Your task to perform on an android device: Open maps Image 0: 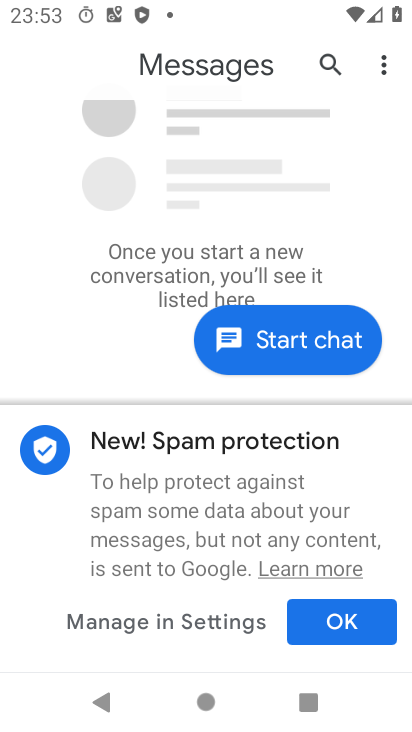
Step 0: press home button
Your task to perform on an android device: Open maps Image 1: 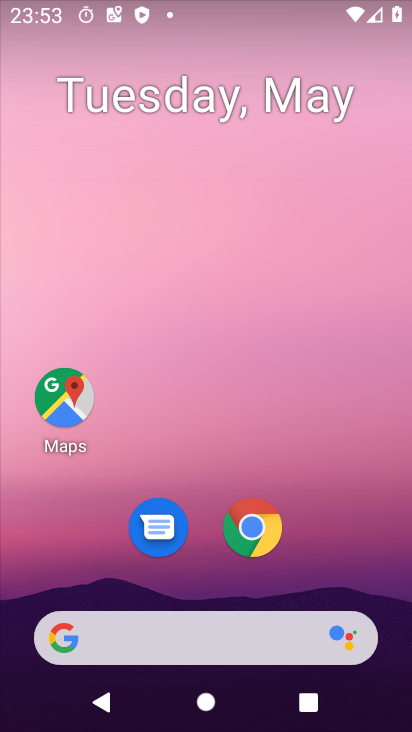
Step 1: drag from (200, 580) to (235, 119)
Your task to perform on an android device: Open maps Image 2: 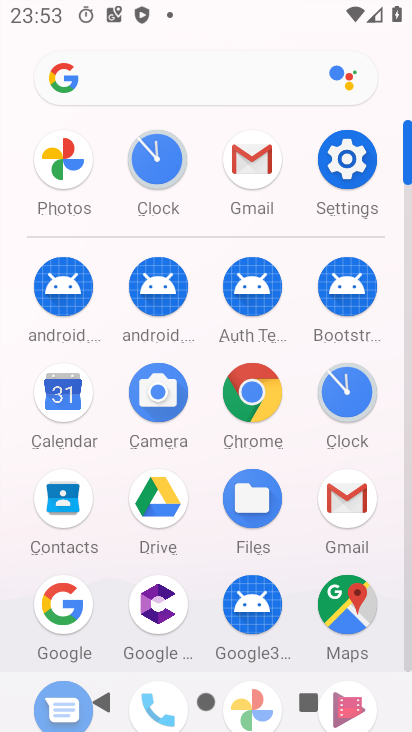
Step 2: click (348, 602)
Your task to perform on an android device: Open maps Image 3: 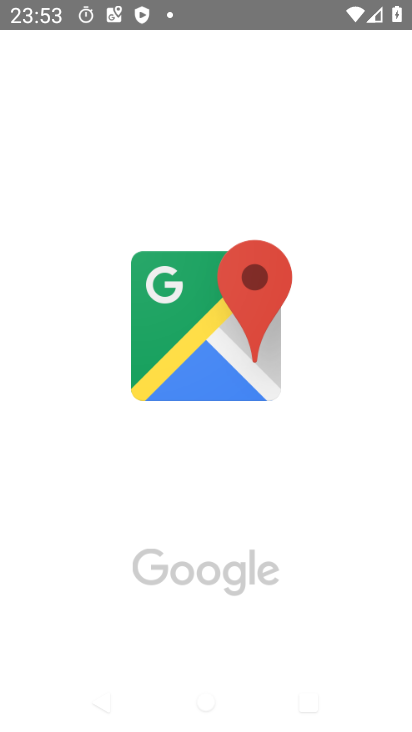
Step 3: task complete